Your task to perform on an android device: Search for Mexican restaurants on Maps Image 0: 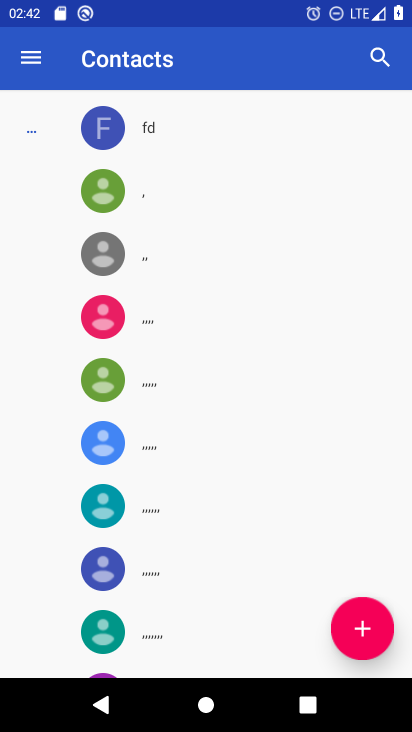
Step 0: press home button
Your task to perform on an android device: Search for Mexican restaurants on Maps Image 1: 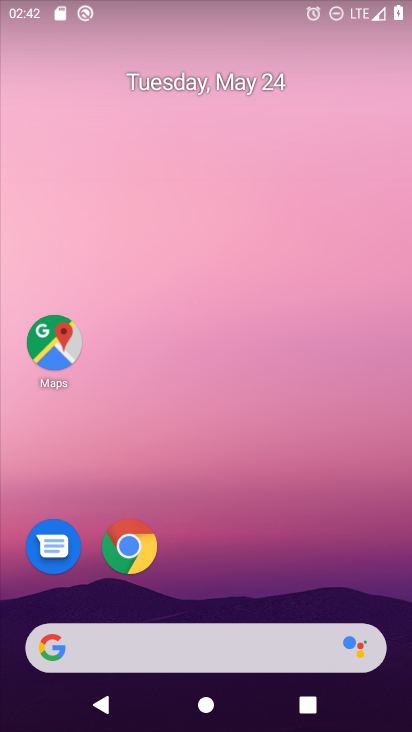
Step 1: drag from (284, 620) to (410, 179)
Your task to perform on an android device: Search for Mexican restaurants on Maps Image 2: 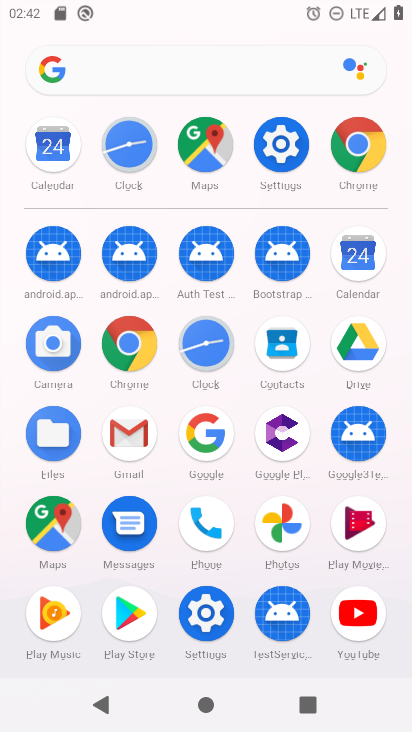
Step 2: click (43, 523)
Your task to perform on an android device: Search for Mexican restaurants on Maps Image 3: 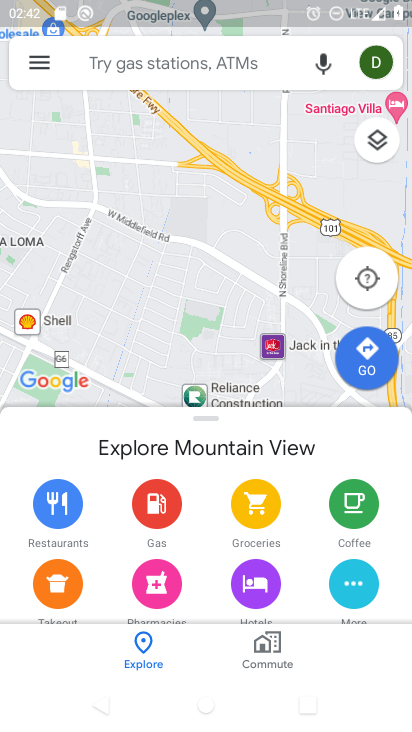
Step 3: click (241, 55)
Your task to perform on an android device: Search for Mexican restaurants on Maps Image 4: 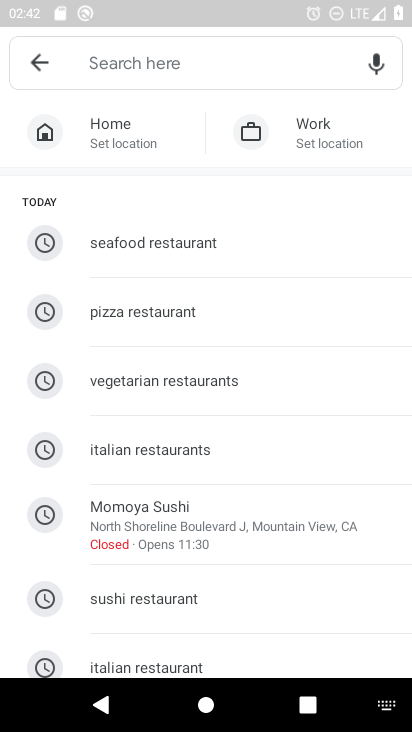
Step 4: type "mexican restaurant"
Your task to perform on an android device: Search for Mexican restaurants on Maps Image 5: 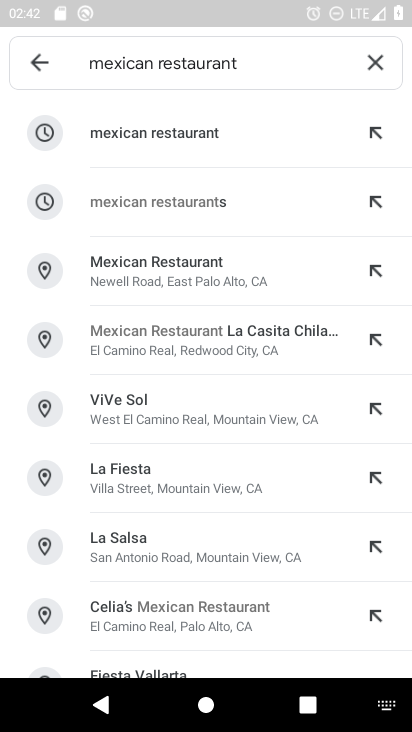
Step 5: click (270, 138)
Your task to perform on an android device: Search for Mexican restaurants on Maps Image 6: 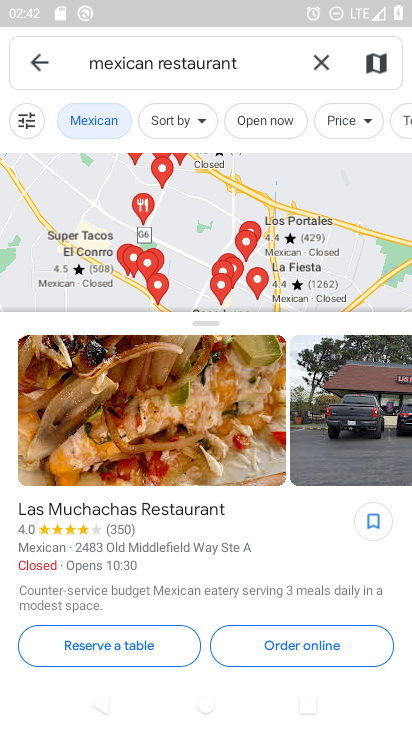
Step 6: task complete